Your task to perform on an android device: check the backup settings in the google photos Image 0: 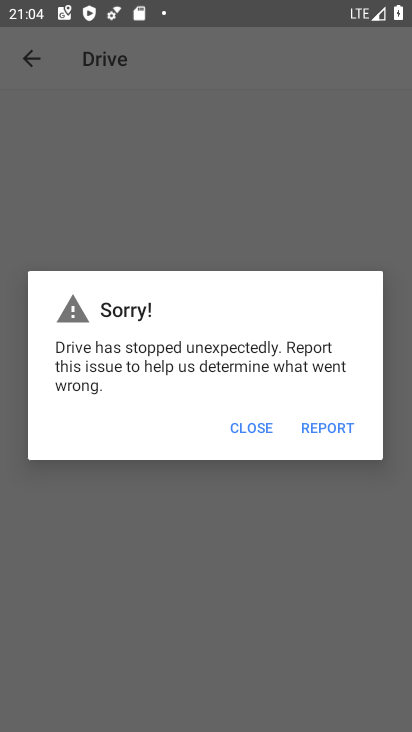
Step 0: press home button
Your task to perform on an android device: check the backup settings in the google photos Image 1: 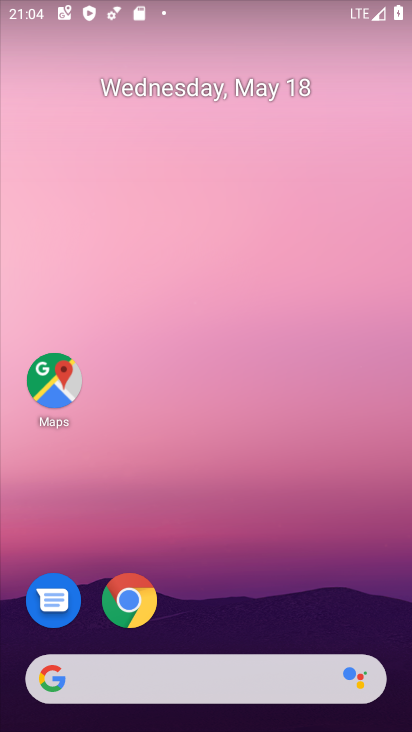
Step 1: drag from (204, 623) to (293, 116)
Your task to perform on an android device: check the backup settings in the google photos Image 2: 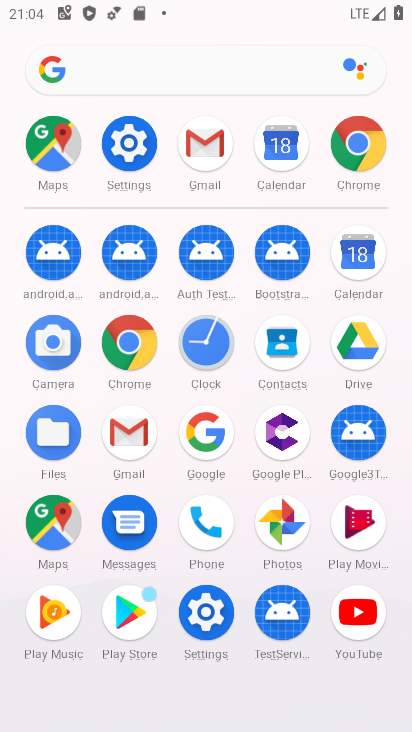
Step 2: click (290, 533)
Your task to perform on an android device: check the backup settings in the google photos Image 3: 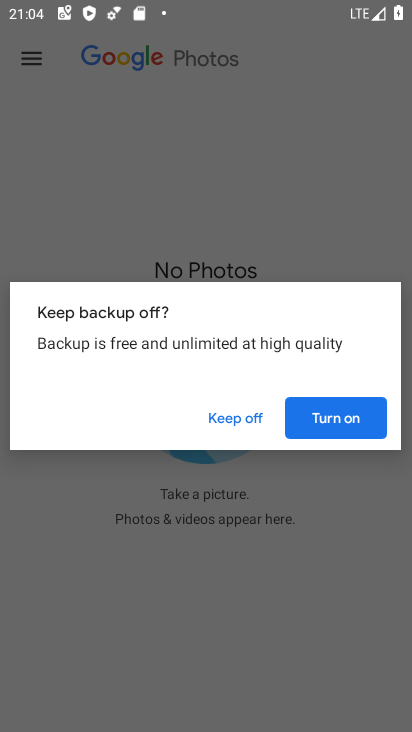
Step 3: click (240, 411)
Your task to perform on an android device: check the backup settings in the google photos Image 4: 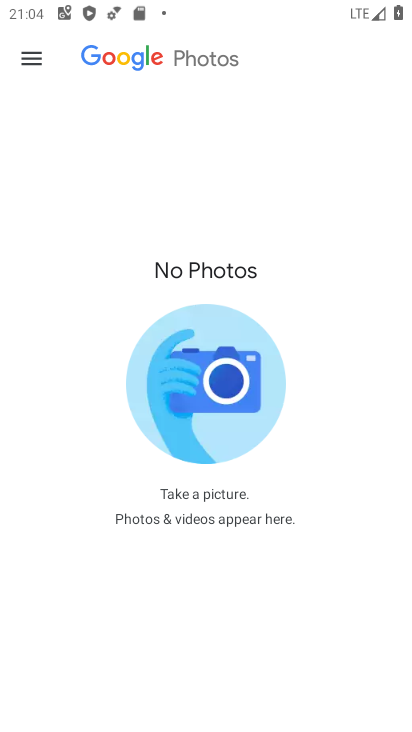
Step 4: click (35, 48)
Your task to perform on an android device: check the backup settings in the google photos Image 5: 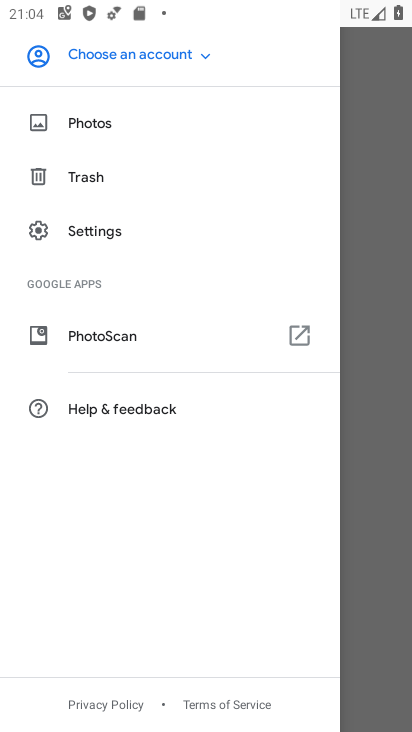
Step 5: click (391, 142)
Your task to perform on an android device: check the backup settings in the google photos Image 6: 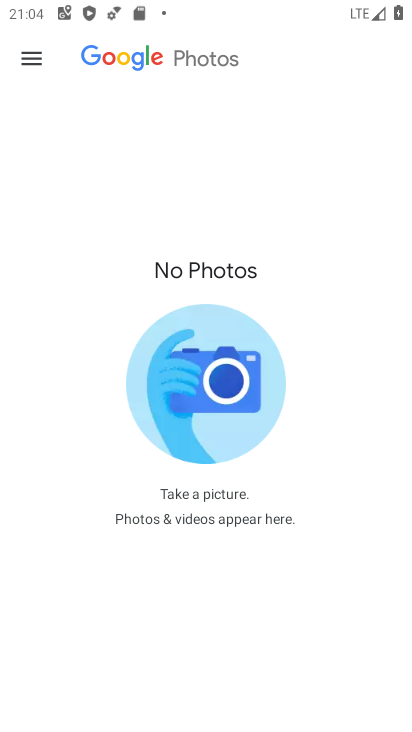
Step 6: task complete